Your task to perform on an android device: Open display settings Image 0: 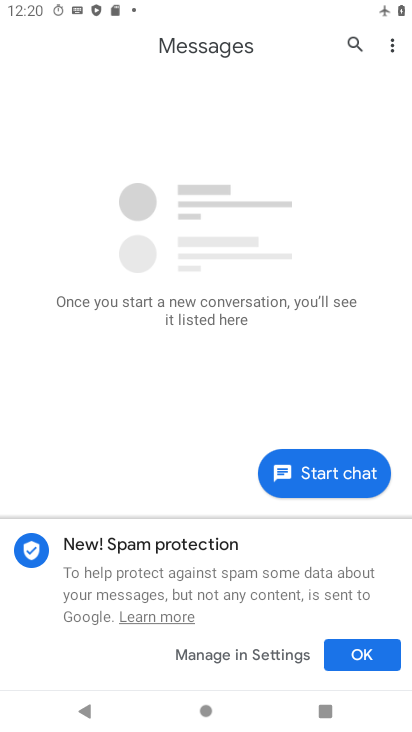
Step 0: press home button
Your task to perform on an android device: Open display settings Image 1: 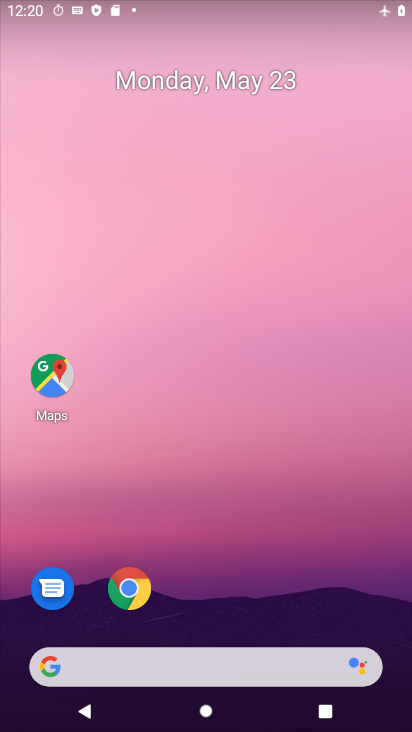
Step 1: drag from (187, 722) to (120, 66)
Your task to perform on an android device: Open display settings Image 2: 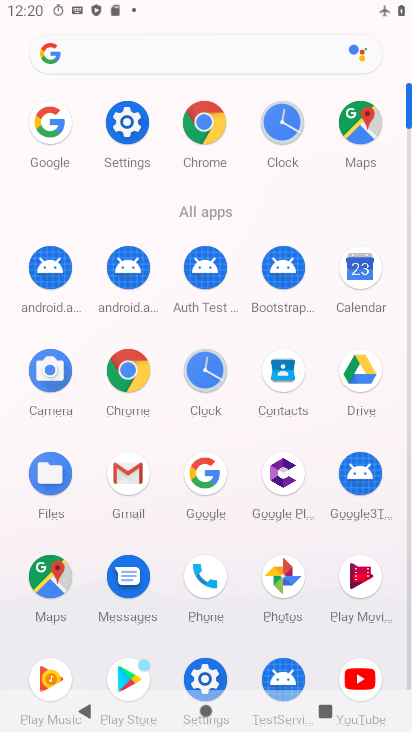
Step 2: click (206, 671)
Your task to perform on an android device: Open display settings Image 3: 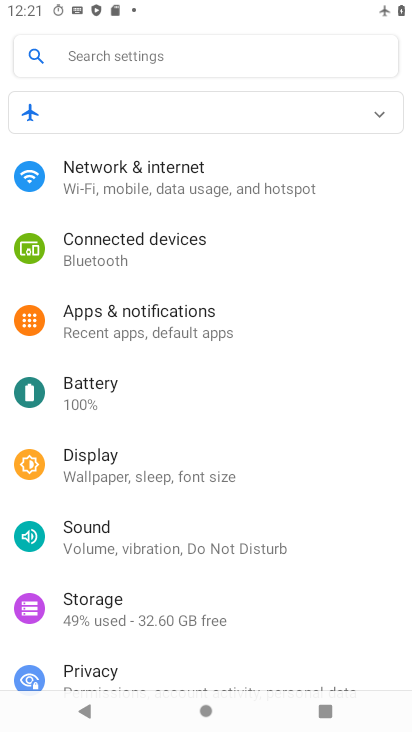
Step 3: click (122, 468)
Your task to perform on an android device: Open display settings Image 4: 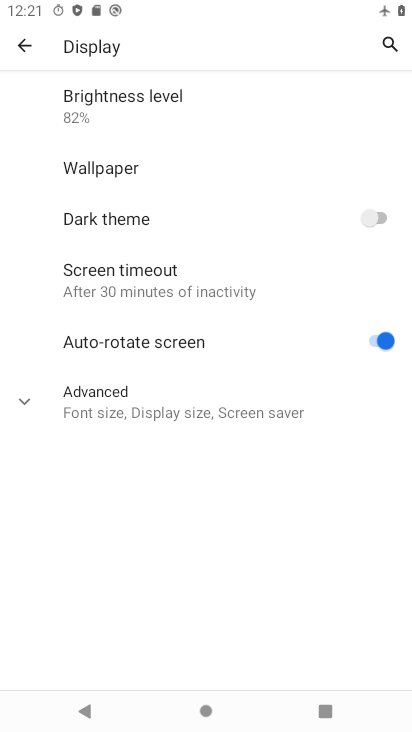
Step 4: task complete